Your task to perform on an android device: Open settings on Google Maps Image 0: 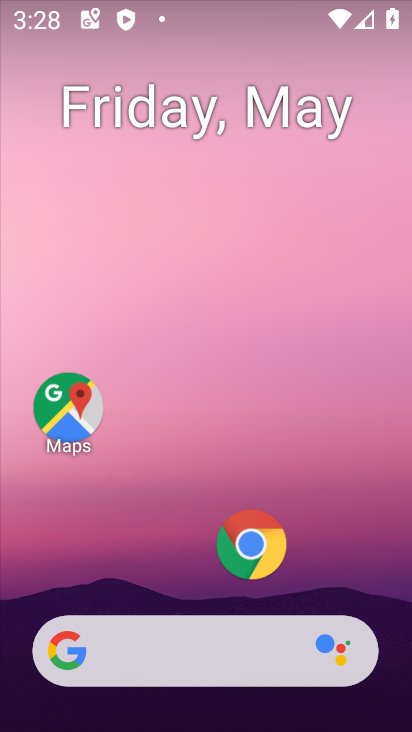
Step 0: click (90, 433)
Your task to perform on an android device: Open settings on Google Maps Image 1: 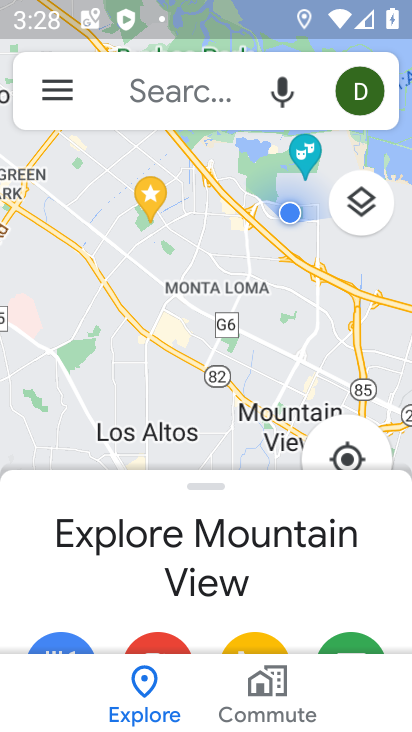
Step 1: click (53, 102)
Your task to perform on an android device: Open settings on Google Maps Image 2: 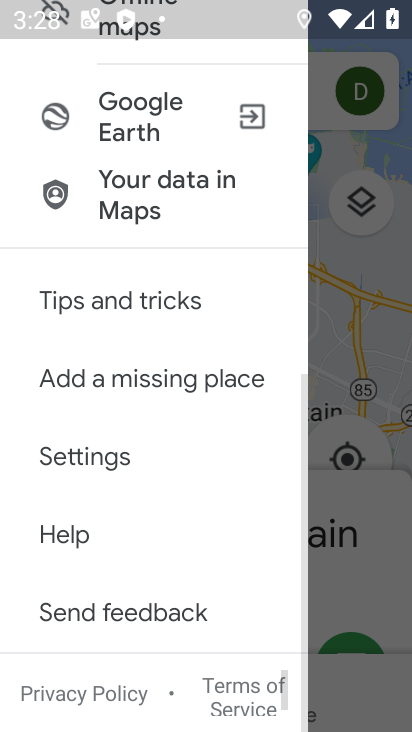
Step 2: drag from (101, 632) to (161, 251)
Your task to perform on an android device: Open settings on Google Maps Image 3: 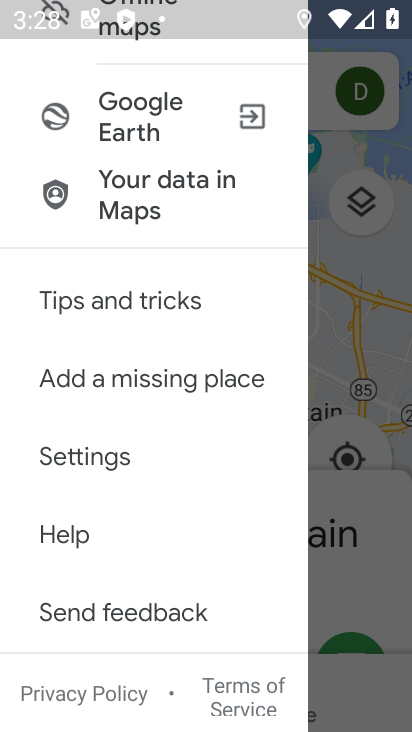
Step 3: click (122, 460)
Your task to perform on an android device: Open settings on Google Maps Image 4: 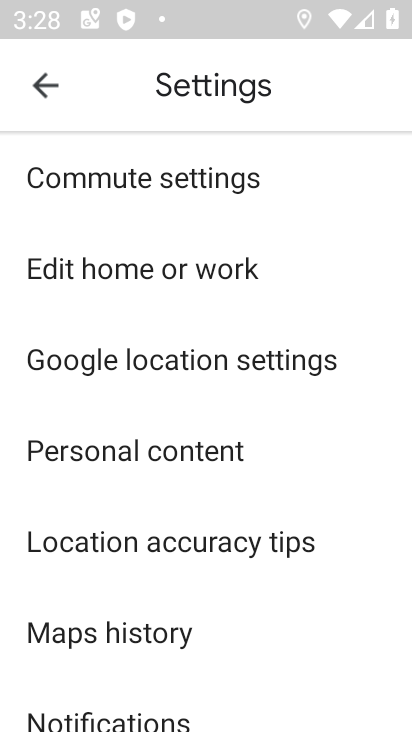
Step 4: task complete